Your task to perform on an android device: turn off notifications settings in the gmail app Image 0: 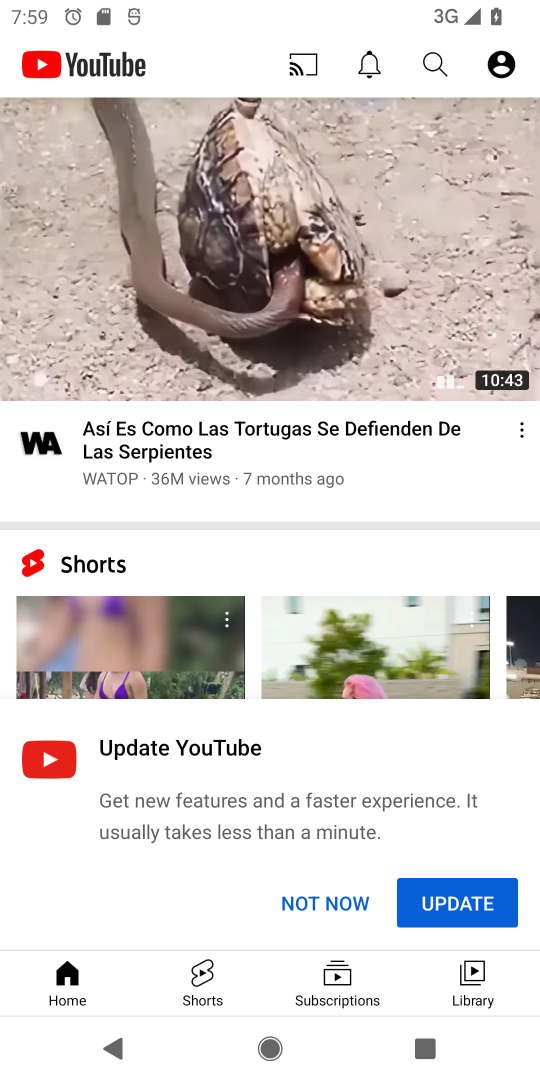
Step 0: press home button
Your task to perform on an android device: turn off notifications settings in the gmail app Image 1: 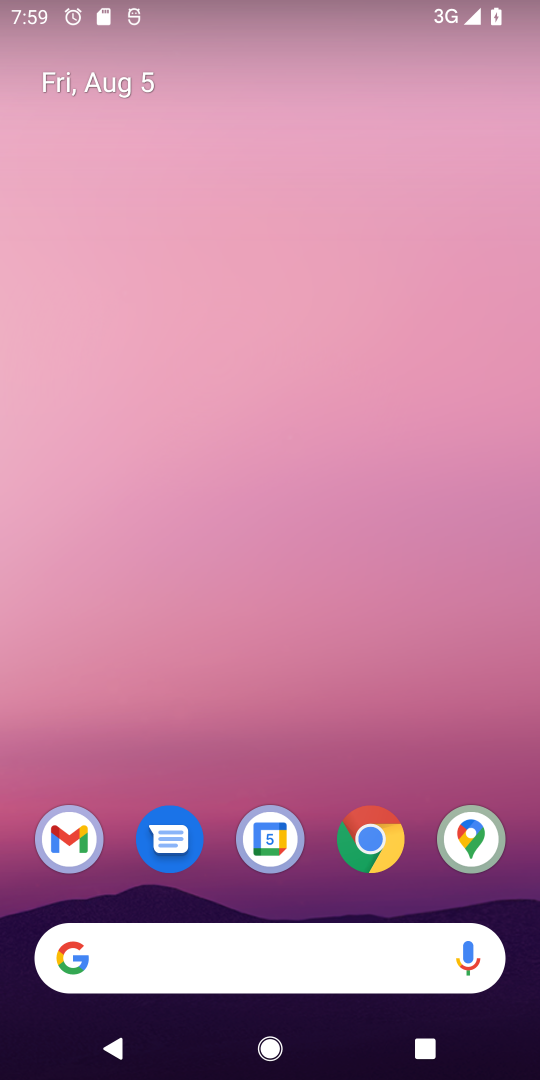
Step 1: click (70, 845)
Your task to perform on an android device: turn off notifications settings in the gmail app Image 2: 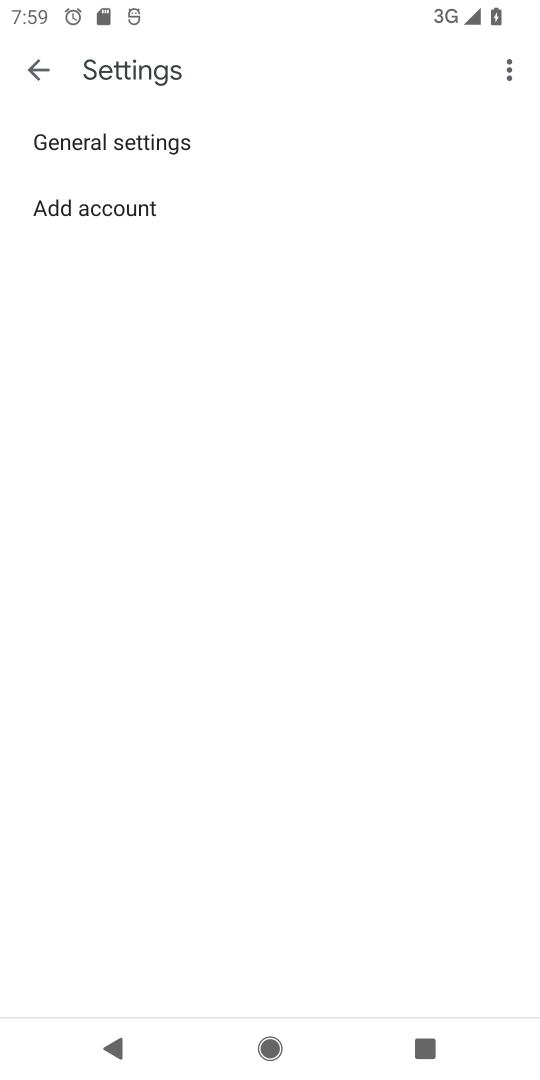
Step 2: click (46, 64)
Your task to perform on an android device: turn off notifications settings in the gmail app Image 3: 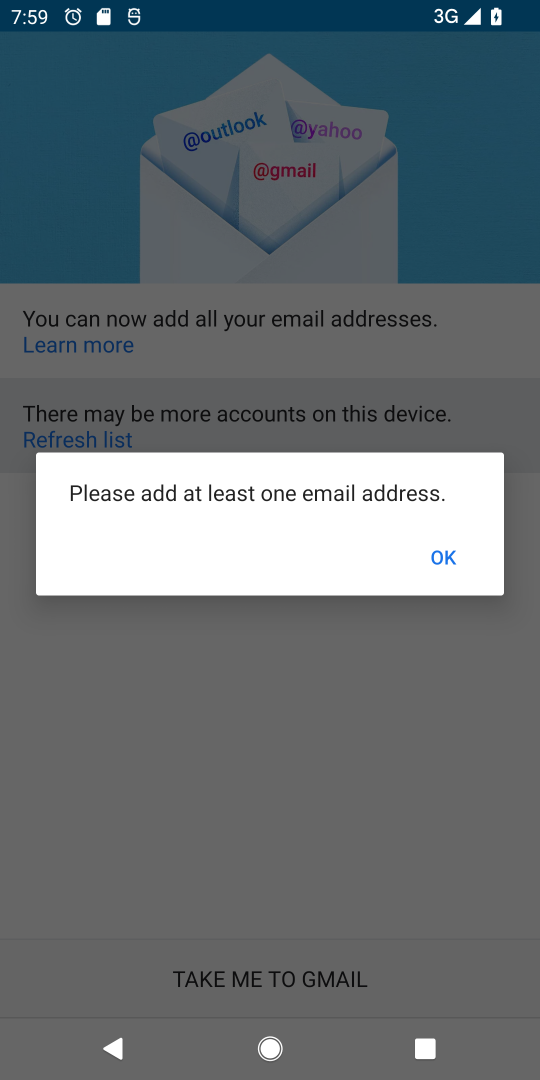
Step 3: click (419, 558)
Your task to perform on an android device: turn off notifications settings in the gmail app Image 4: 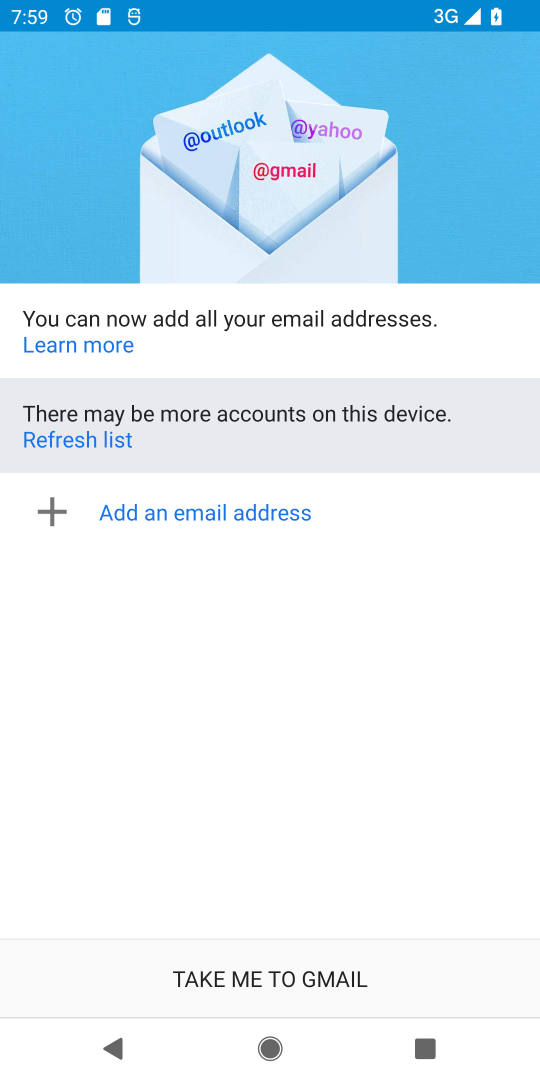
Step 4: task complete